Your task to perform on an android device: Open privacy settings Image 0: 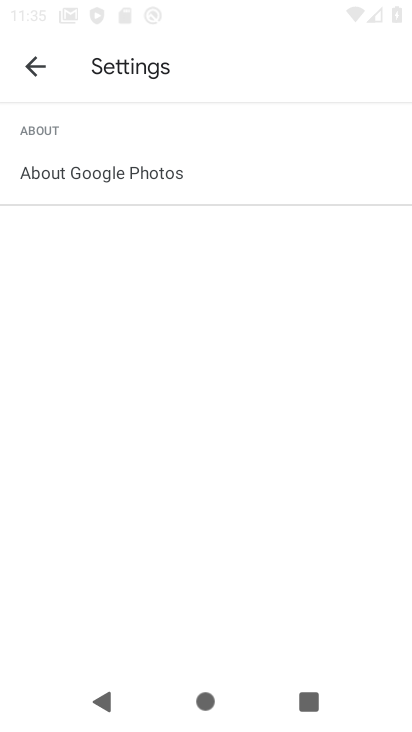
Step 0: press home button
Your task to perform on an android device: Open privacy settings Image 1: 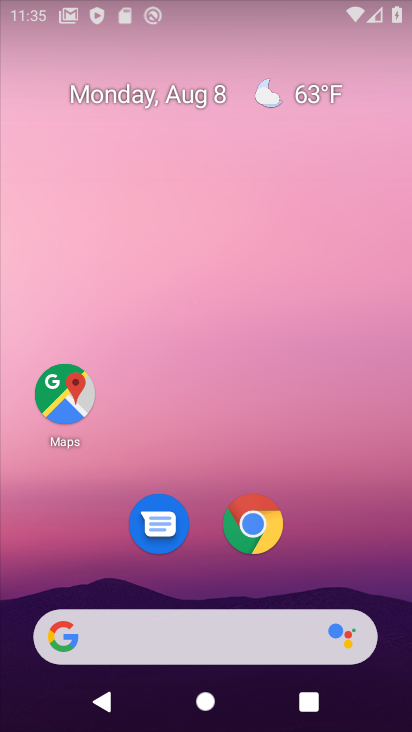
Step 1: drag from (205, 562) to (224, 45)
Your task to perform on an android device: Open privacy settings Image 2: 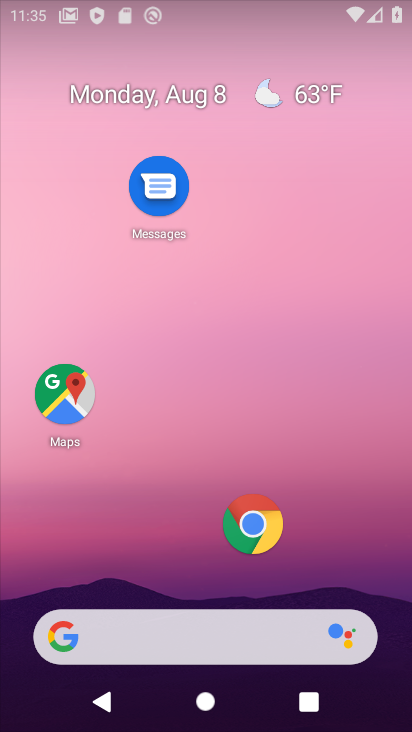
Step 2: drag from (179, 585) to (230, 85)
Your task to perform on an android device: Open privacy settings Image 3: 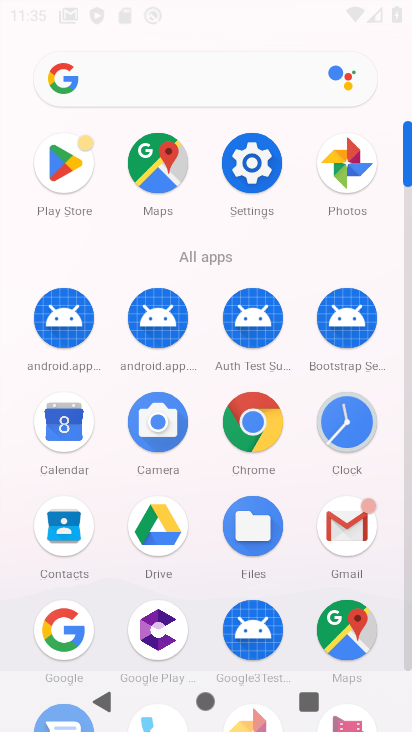
Step 3: click (260, 153)
Your task to perform on an android device: Open privacy settings Image 4: 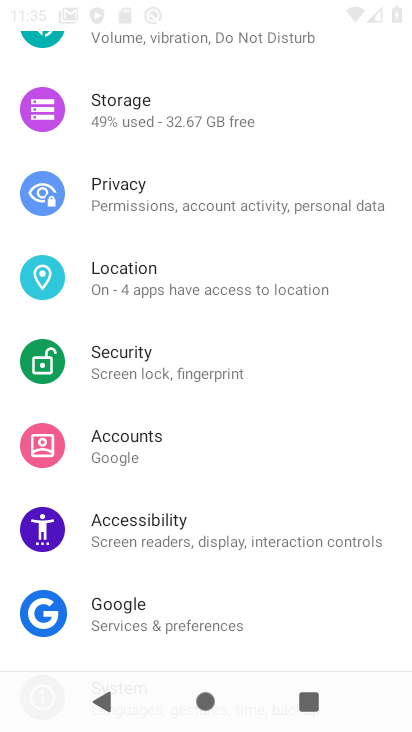
Step 4: click (143, 190)
Your task to perform on an android device: Open privacy settings Image 5: 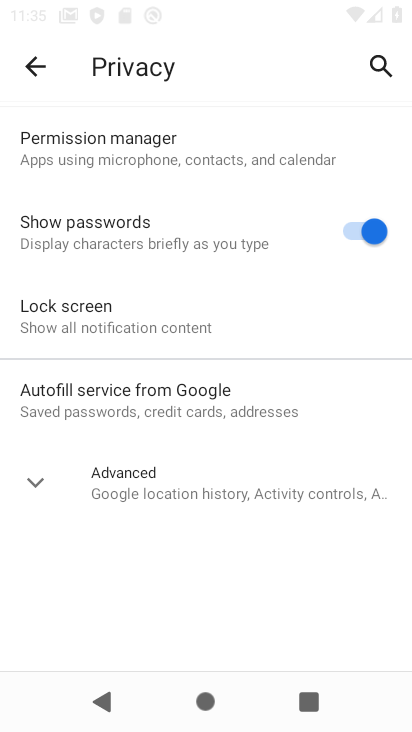
Step 5: task complete